Your task to perform on an android device: Go to ESPN.com Image 0: 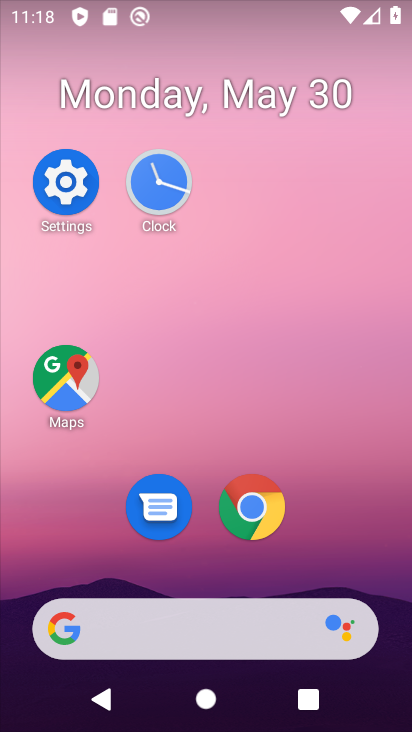
Step 0: click (260, 505)
Your task to perform on an android device: Go to ESPN.com Image 1: 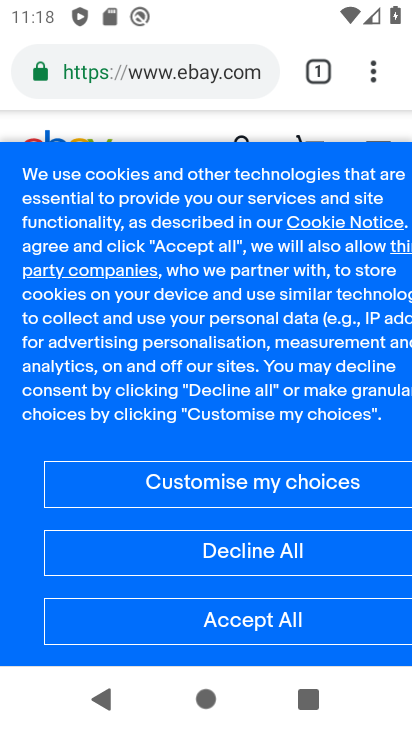
Step 1: click (318, 93)
Your task to perform on an android device: Go to ESPN.com Image 2: 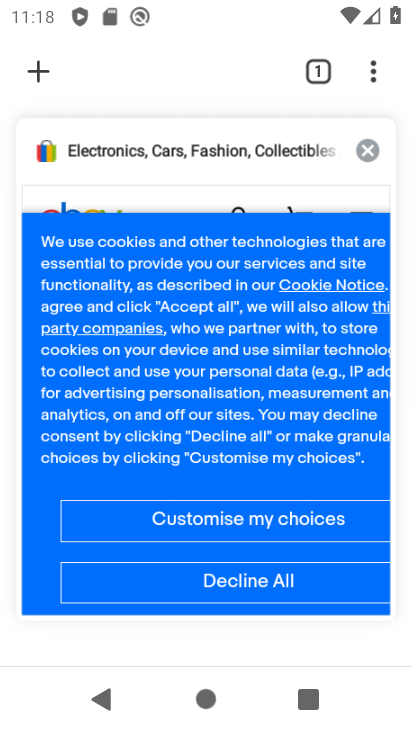
Step 2: click (34, 73)
Your task to perform on an android device: Go to ESPN.com Image 3: 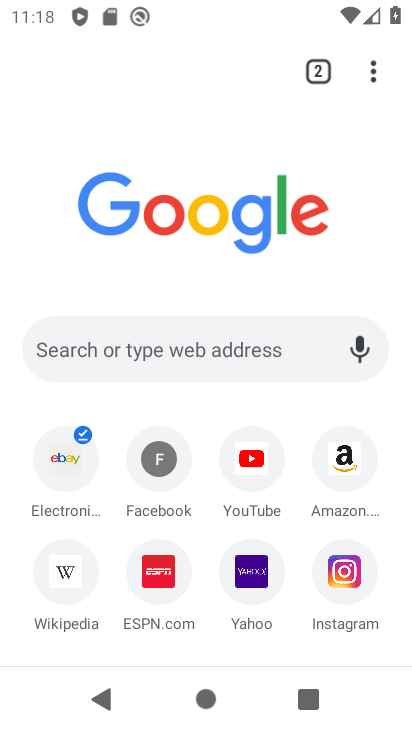
Step 3: click (167, 599)
Your task to perform on an android device: Go to ESPN.com Image 4: 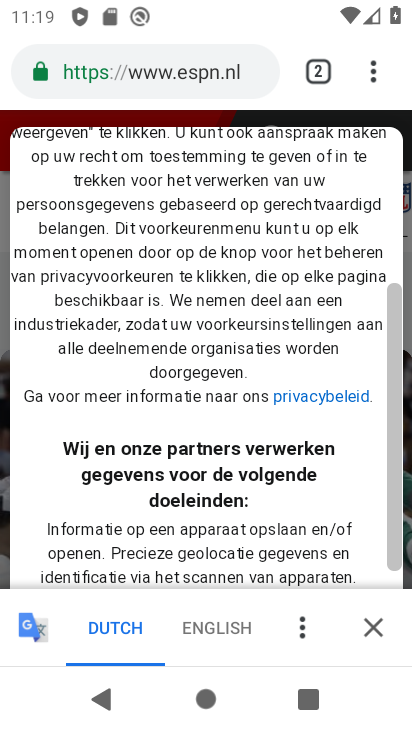
Step 4: task complete